Your task to perform on an android device: Search for Mexican restaurants on Maps Image 0: 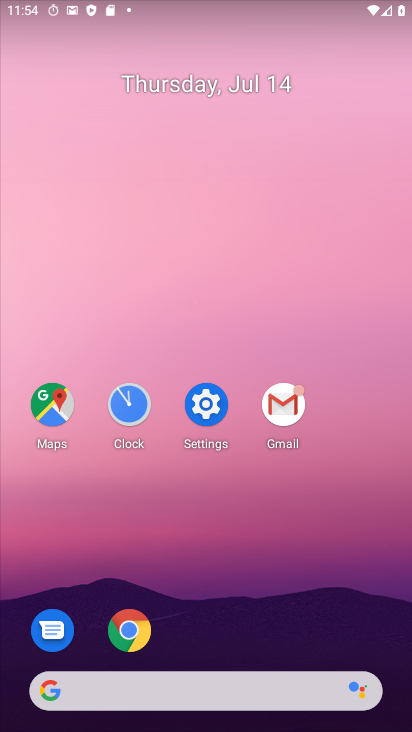
Step 0: click (54, 405)
Your task to perform on an android device: Search for Mexican restaurants on Maps Image 1: 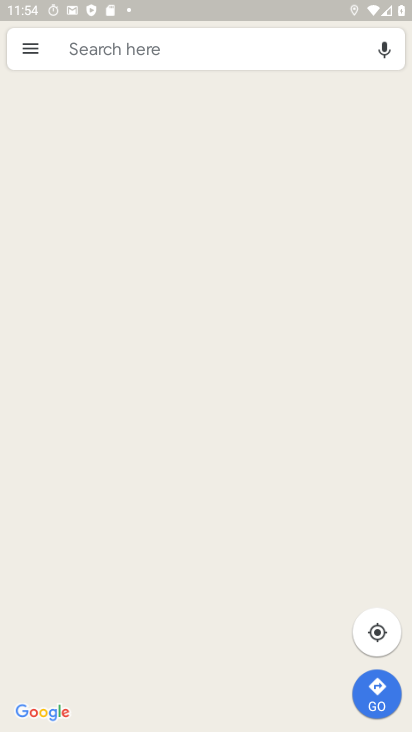
Step 1: click (130, 54)
Your task to perform on an android device: Search for Mexican restaurants on Maps Image 2: 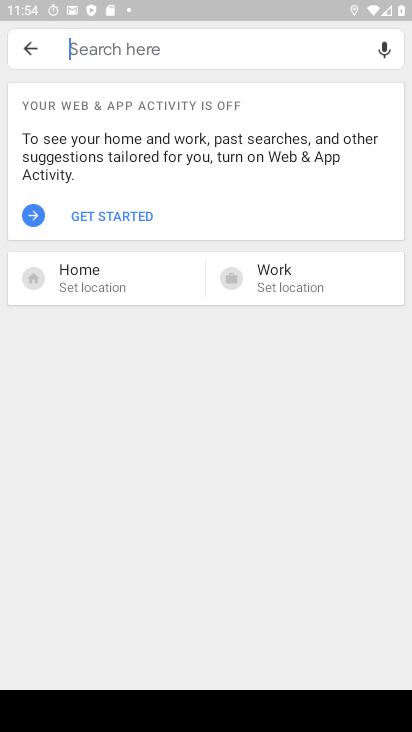
Step 2: type " Mexican restaurants"
Your task to perform on an android device: Search for Mexican restaurants on Maps Image 3: 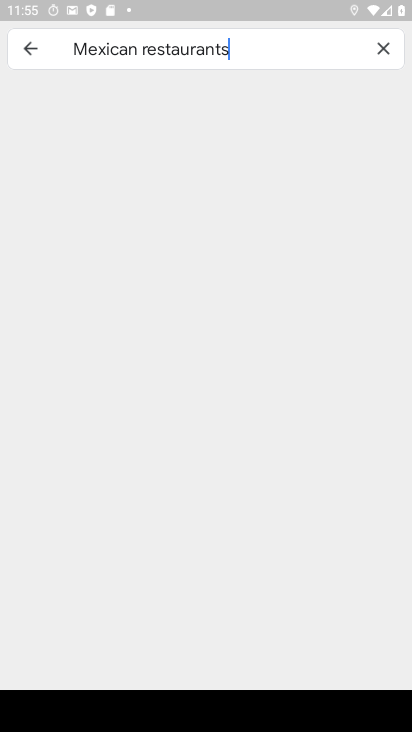
Step 3: task complete